Your task to perform on an android device: When is my next appointment? Image 0: 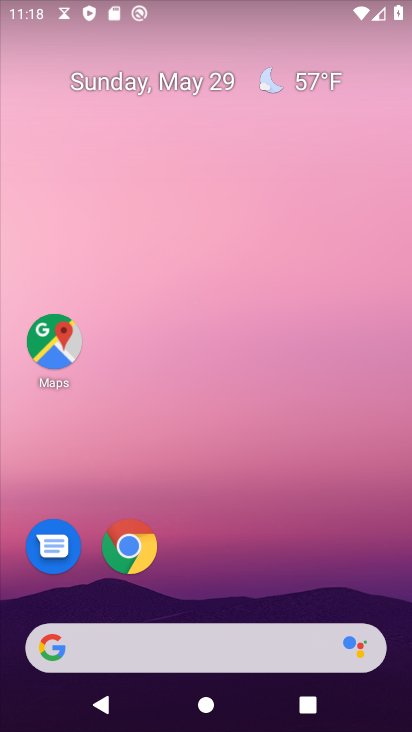
Step 0: press home button
Your task to perform on an android device: When is my next appointment? Image 1: 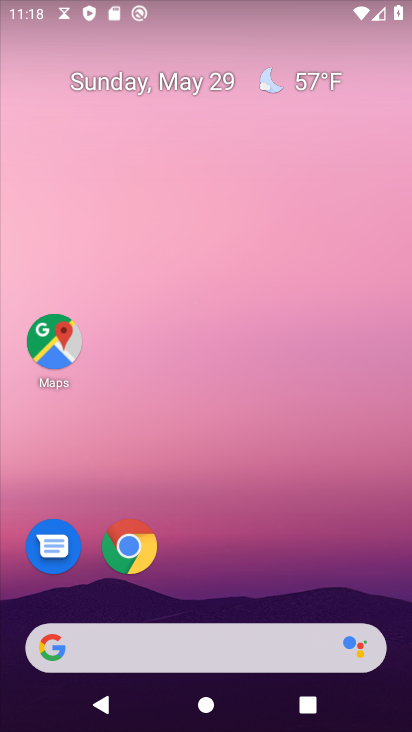
Step 1: drag from (115, 641) to (335, 121)
Your task to perform on an android device: When is my next appointment? Image 2: 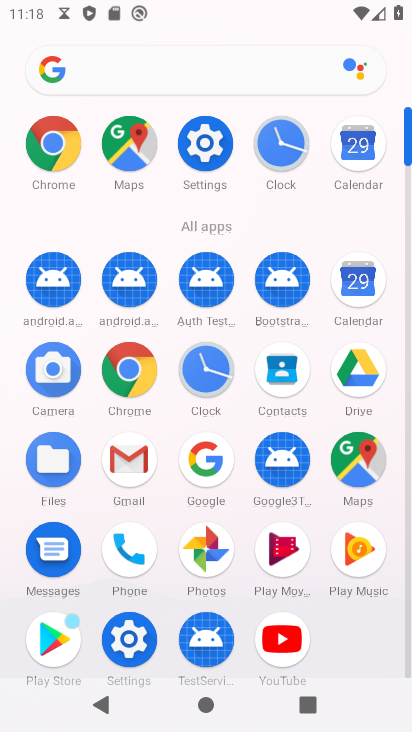
Step 2: click (359, 306)
Your task to perform on an android device: When is my next appointment? Image 3: 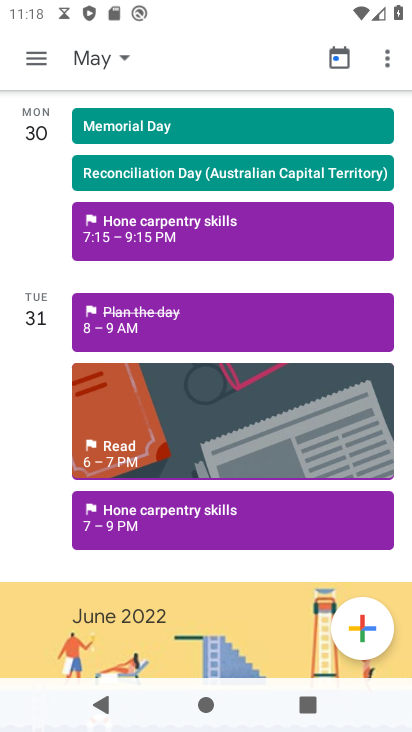
Step 3: click (140, 236)
Your task to perform on an android device: When is my next appointment? Image 4: 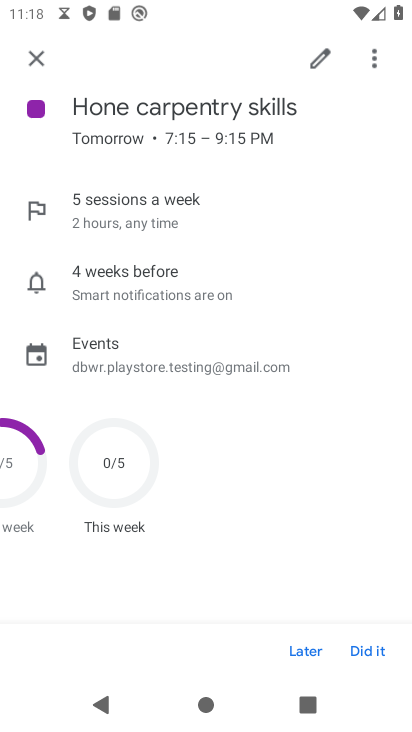
Step 4: task complete